Your task to perform on an android device: change the clock display to analog Image 0: 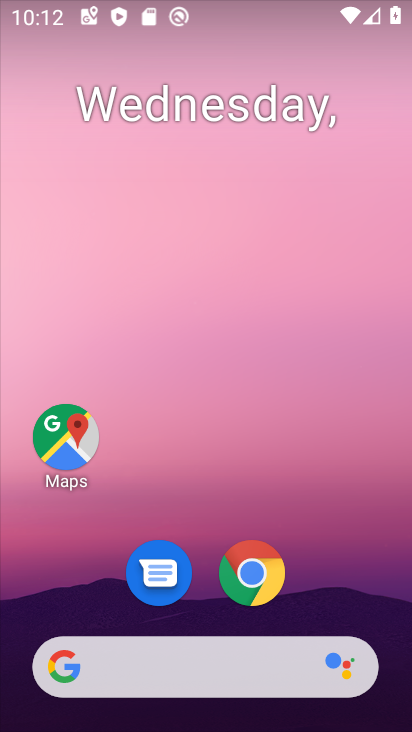
Step 0: drag from (367, 577) to (374, 194)
Your task to perform on an android device: change the clock display to analog Image 1: 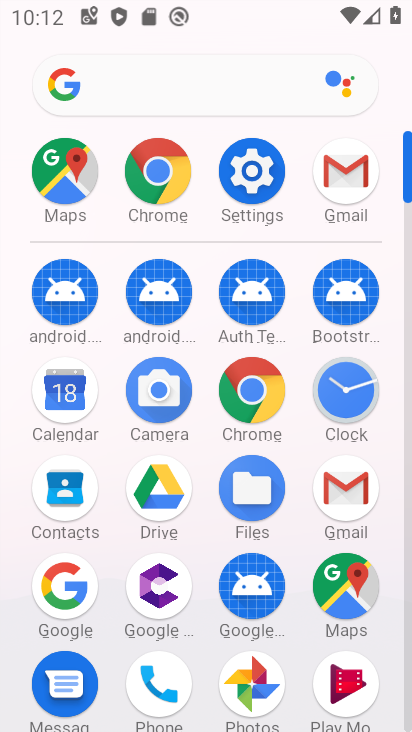
Step 1: click (361, 383)
Your task to perform on an android device: change the clock display to analog Image 2: 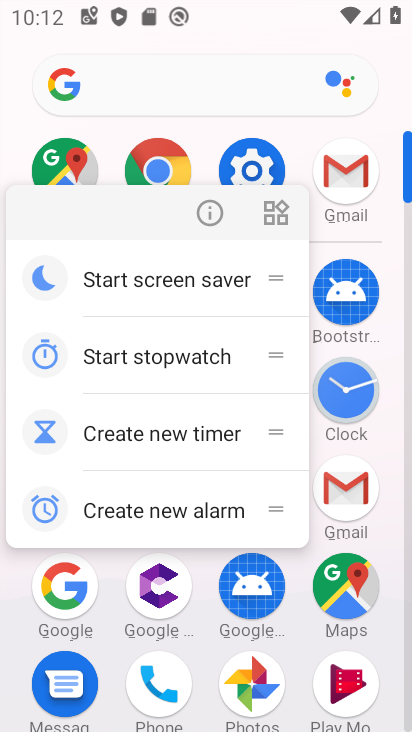
Step 2: click (359, 389)
Your task to perform on an android device: change the clock display to analog Image 3: 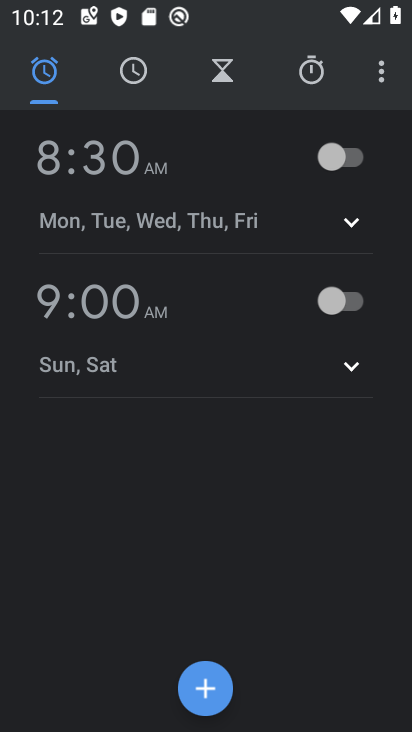
Step 3: click (380, 86)
Your task to perform on an android device: change the clock display to analog Image 4: 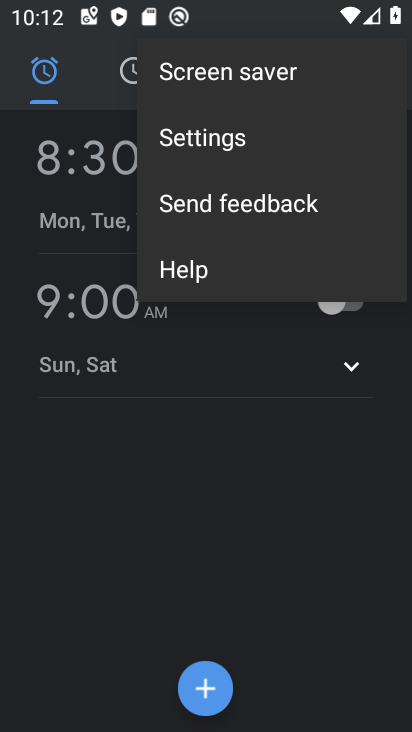
Step 4: click (254, 157)
Your task to perform on an android device: change the clock display to analog Image 5: 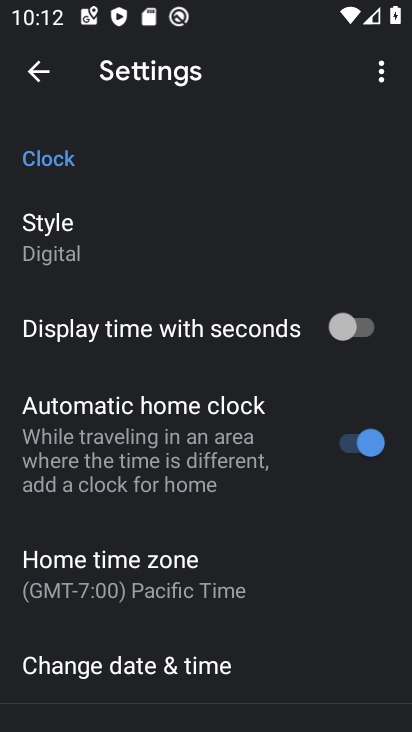
Step 5: drag from (325, 579) to (328, 450)
Your task to perform on an android device: change the clock display to analog Image 6: 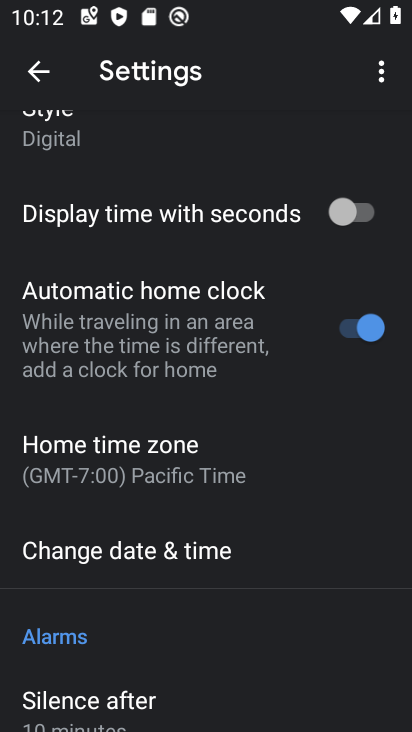
Step 6: drag from (327, 622) to (324, 461)
Your task to perform on an android device: change the clock display to analog Image 7: 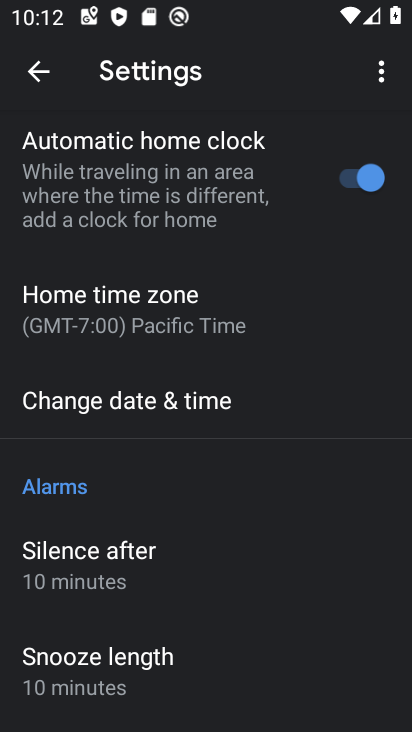
Step 7: drag from (333, 640) to (331, 452)
Your task to perform on an android device: change the clock display to analog Image 8: 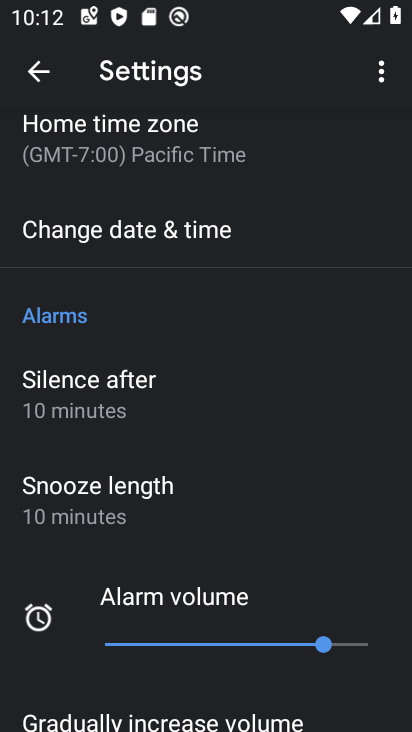
Step 8: drag from (343, 657) to (340, 497)
Your task to perform on an android device: change the clock display to analog Image 9: 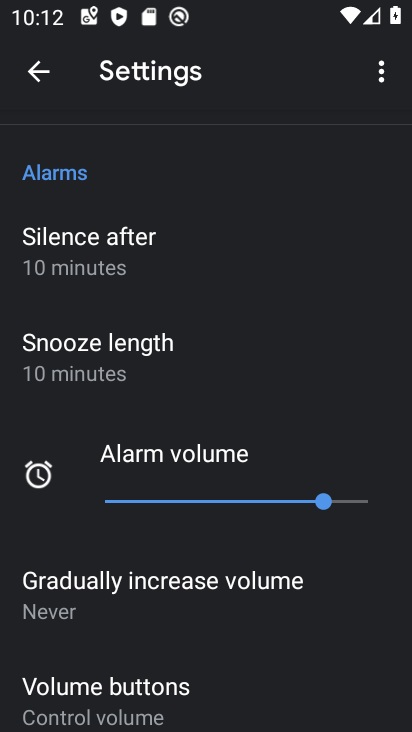
Step 9: drag from (348, 661) to (347, 469)
Your task to perform on an android device: change the clock display to analog Image 10: 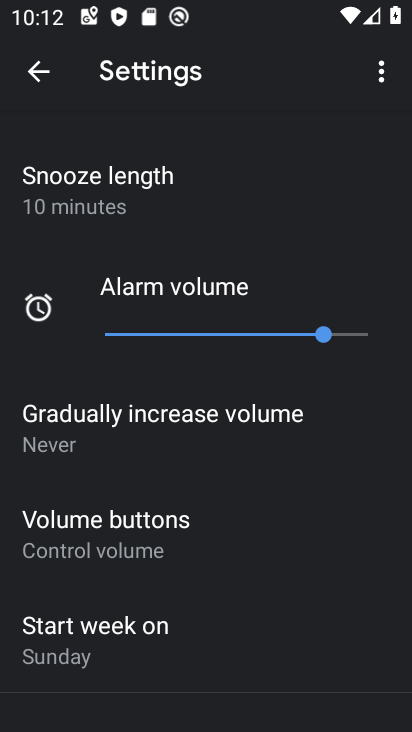
Step 10: drag from (338, 665) to (326, 495)
Your task to perform on an android device: change the clock display to analog Image 11: 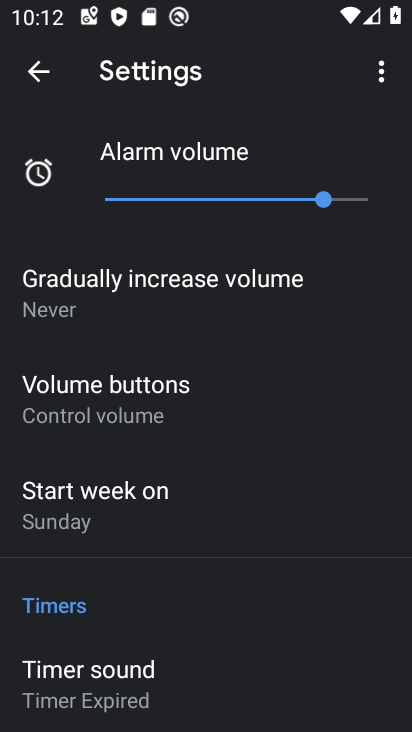
Step 11: drag from (307, 646) to (312, 486)
Your task to perform on an android device: change the clock display to analog Image 12: 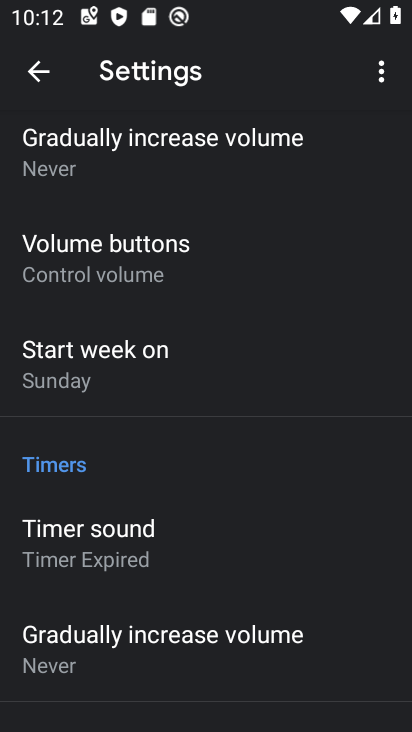
Step 12: drag from (326, 670) to (337, 484)
Your task to perform on an android device: change the clock display to analog Image 13: 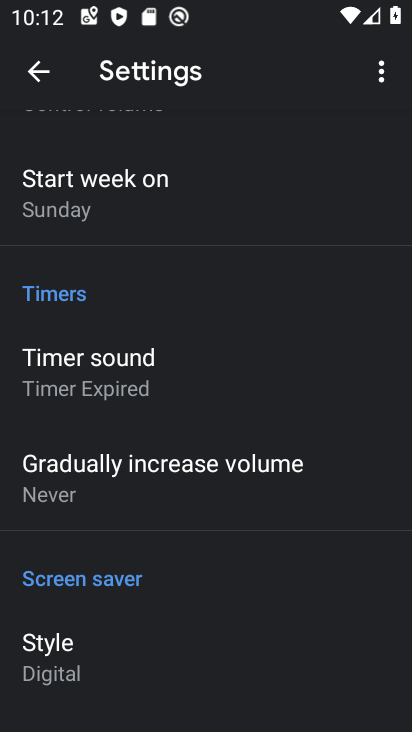
Step 13: drag from (336, 670) to (350, 495)
Your task to perform on an android device: change the clock display to analog Image 14: 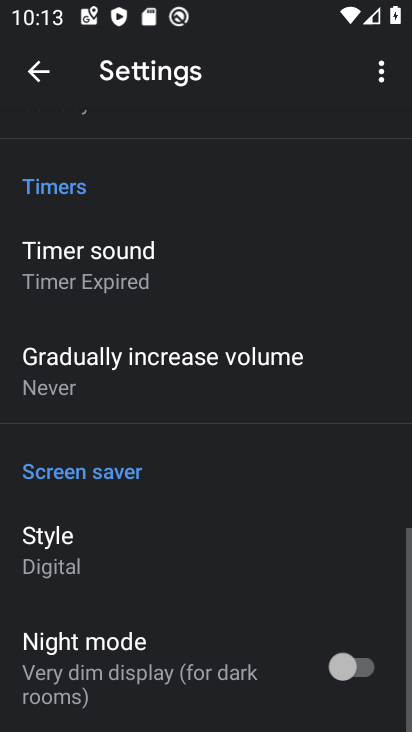
Step 14: drag from (361, 413) to (360, 545)
Your task to perform on an android device: change the clock display to analog Image 15: 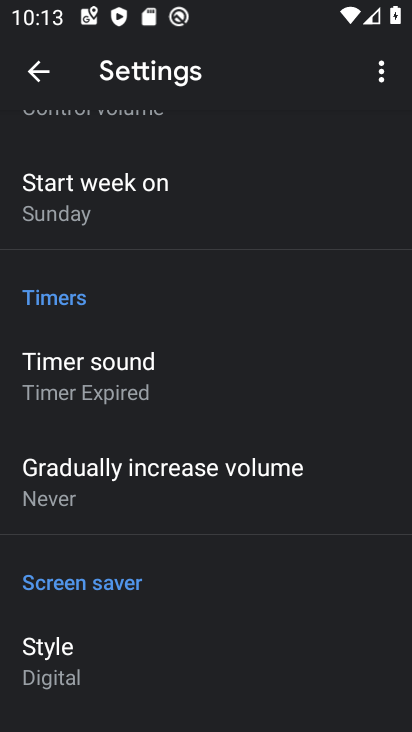
Step 15: drag from (376, 405) to (369, 543)
Your task to perform on an android device: change the clock display to analog Image 16: 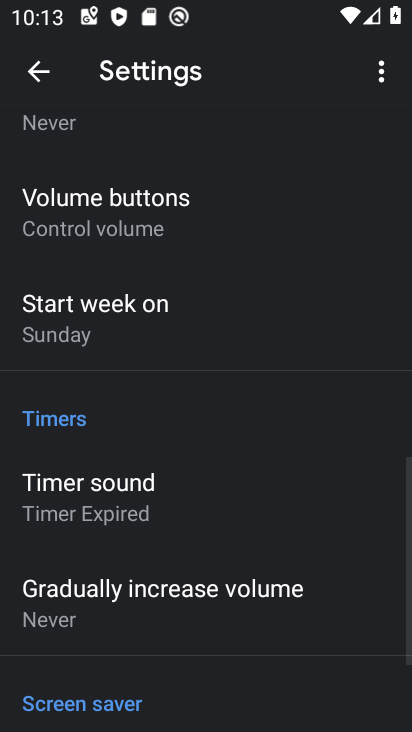
Step 16: drag from (374, 405) to (377, 504)
Your task to perform on an android device: change the clock display to analog Image 17: 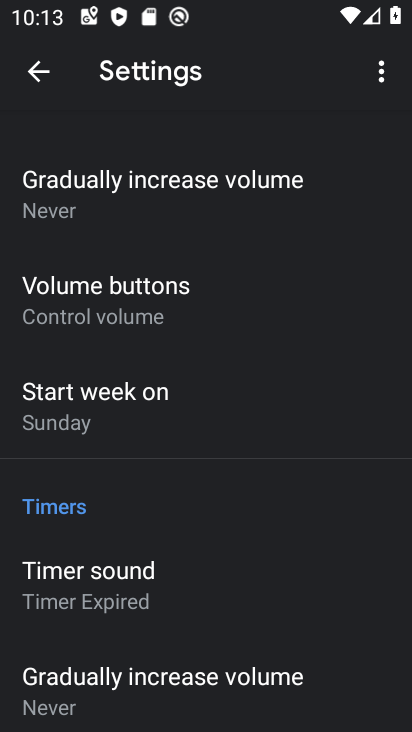
Step 17: drag from (372, 386) to (372, 489)
Your task to perform on an android device: change the clock display to analog Image 18: 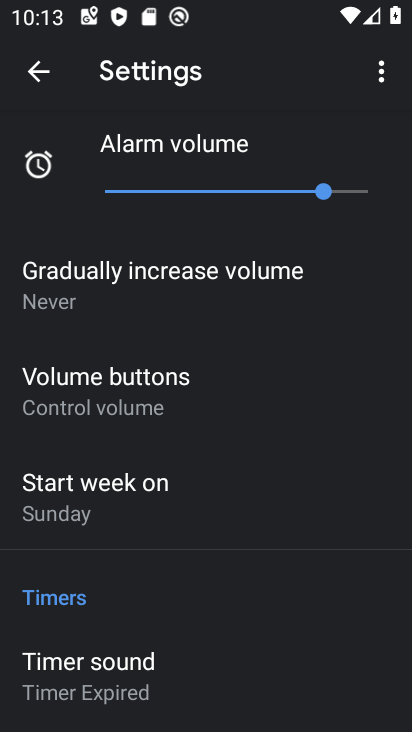
Step 18: drag from (378, 345) to (367, 441)
Your task to perform on an android device: change the clock display to analog Image 19: 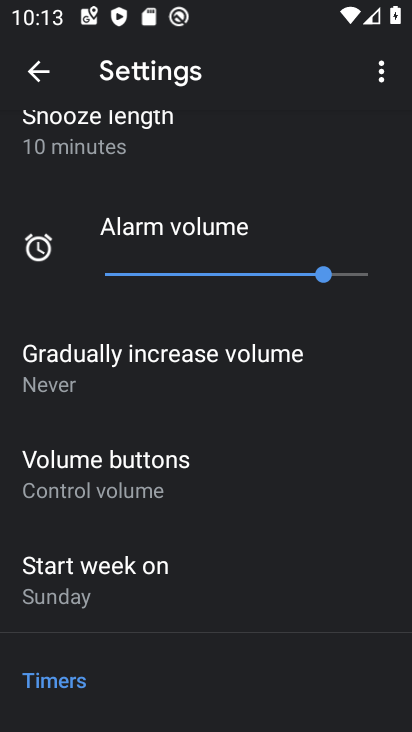
Step 19: drag from (364, 342) to (367, 418)
Your task to perform on an android device: change the clock display to analog Image 20: 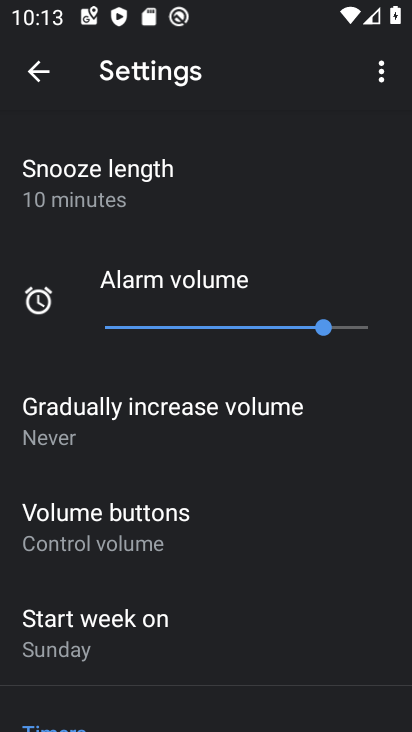
Step 20: drag from (368, 293) to (359, 395)
Your task to perform on an android device: change the clock display to analog Image 21: 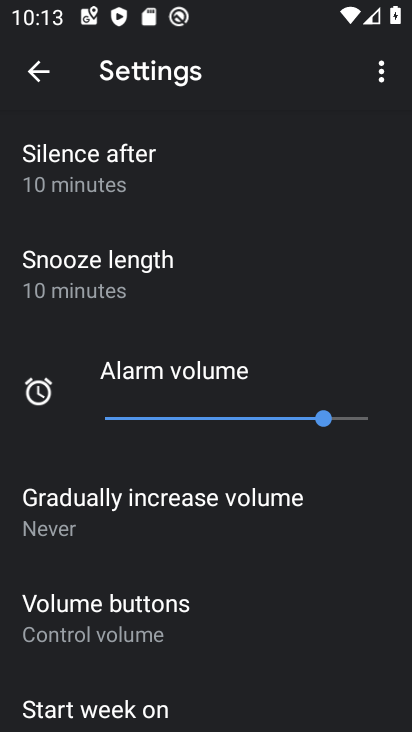
Step 21: drag from (354, 275) to (345, 378)
Your task to perform on an android device: change the clock display to analog Image 22: 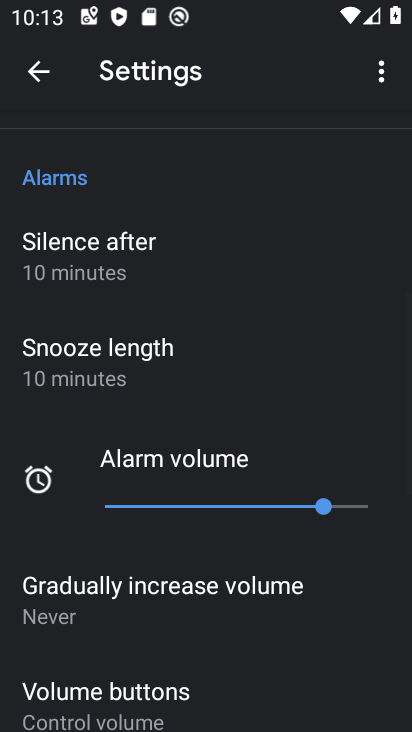
Step 22: drag from (345, 250) to (337, 348)
Your task to perform on an android device: change the clock display to analog Image 23: 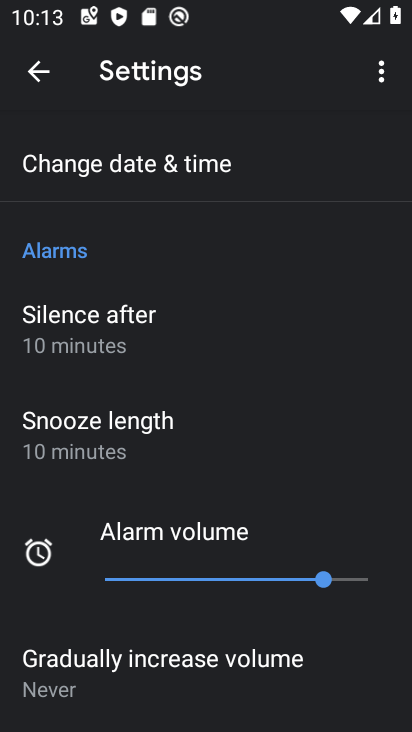
Step 23: drag from (336, 244) to (331, 337)
Your task to perform on an android device: change the clock display to analog Image 24: 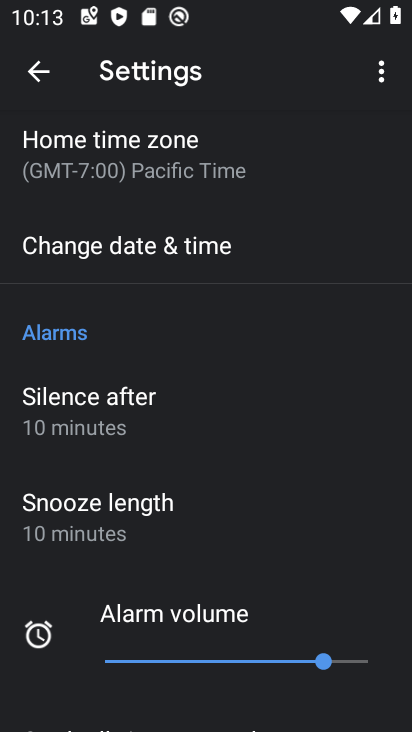
Step 24: drag from (345, 248) to (337, 317)
Your task to perform on an android device: change the clock display to analog Image 25: 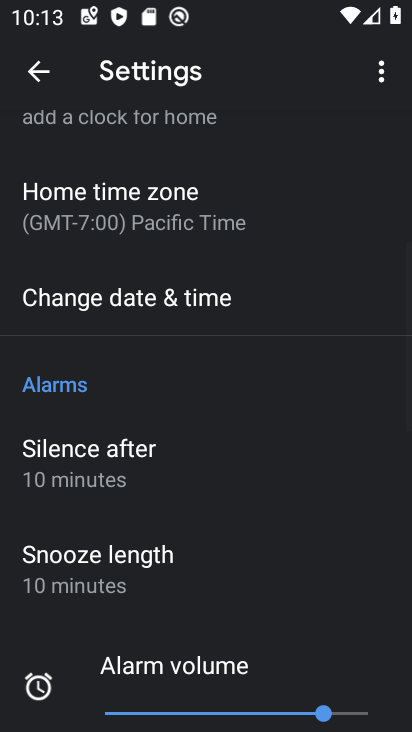
Step 25: drag from (342, 243) to (337, 311)
Your task to perform on an android device: change the clock display to analog Image 26: 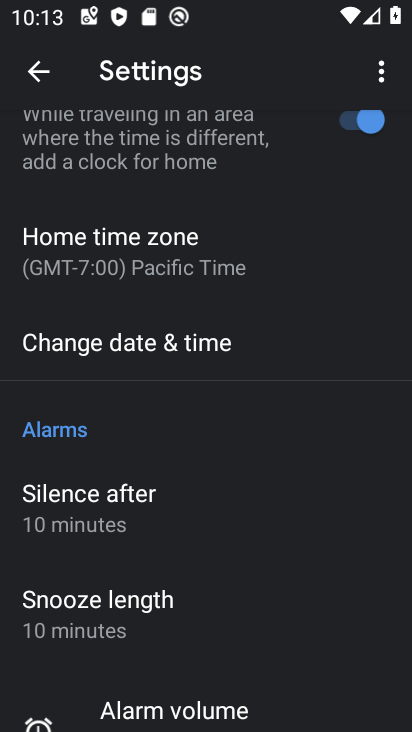
Step 26: drag from (342, 242) to (333, 313)
Your task to perform on an android device: change the clock display to analog Image 27: 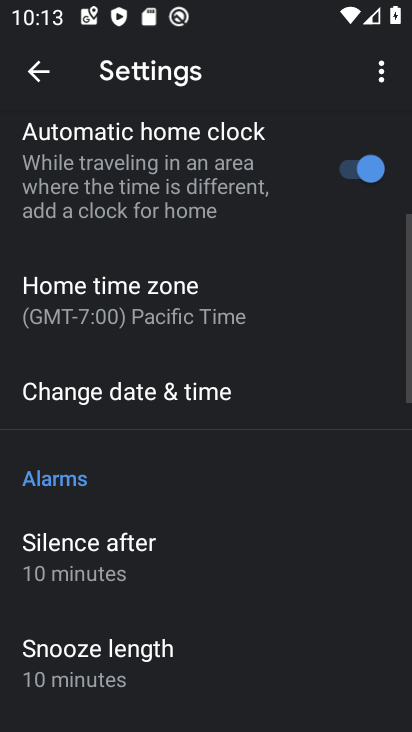
Step 27: drag from (327, 232) to (321, 300)
Your task to perform on an android device: change the clock display to analog Image 28: 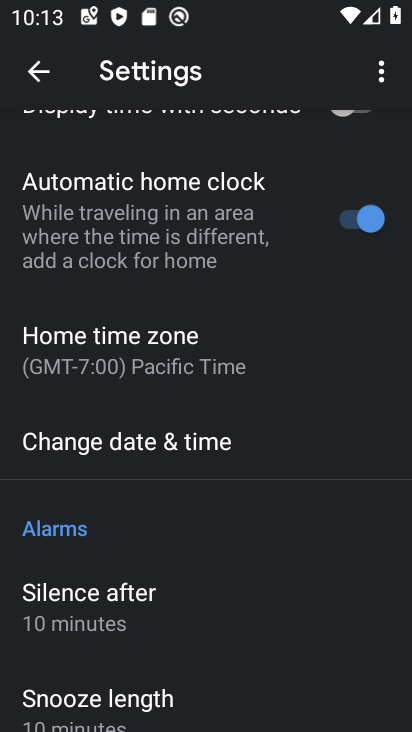
Step 28: drag from (318, 205) to (315, 285)
Your task to perform on an android device: change the clock display to analog Image 29: 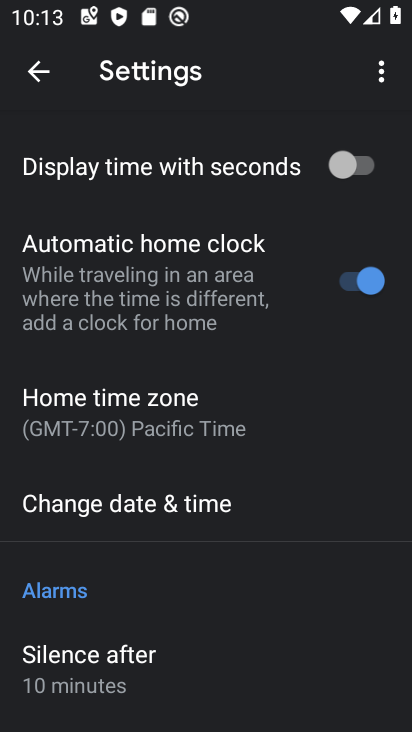
Step 29: drag from (305, 152) to (296, 264)
Your task to perform on an android device: change the clock display to analog Image 30: 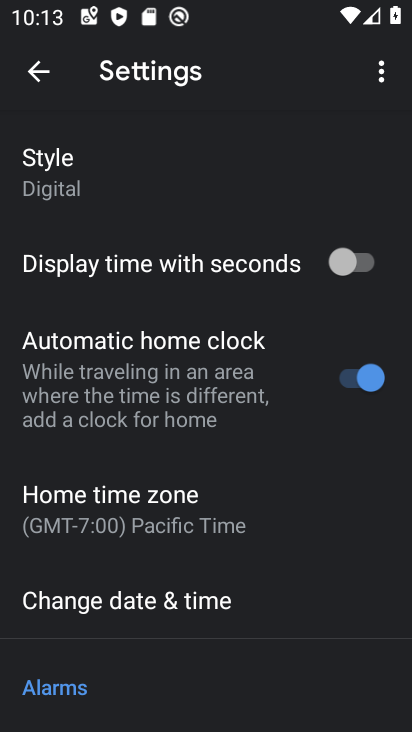
Step 30: drag from (294, 176) to (281, 296)
Your task to perform on an android device: change the clock display to analog Image 31: 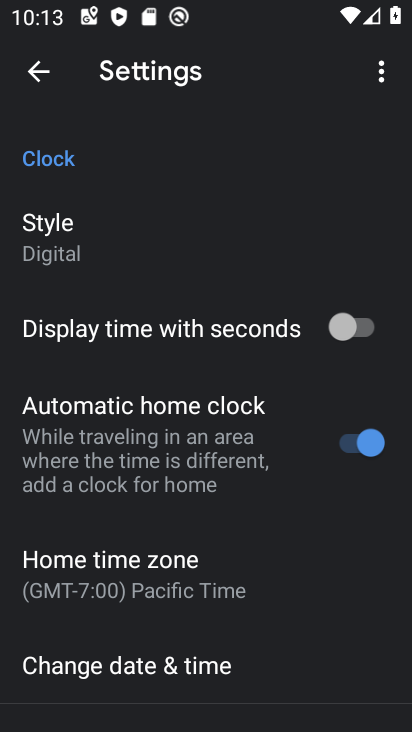
Step 31: click (60, 252)
Your task to perform on an android device: change the clock display to analog Image 32: 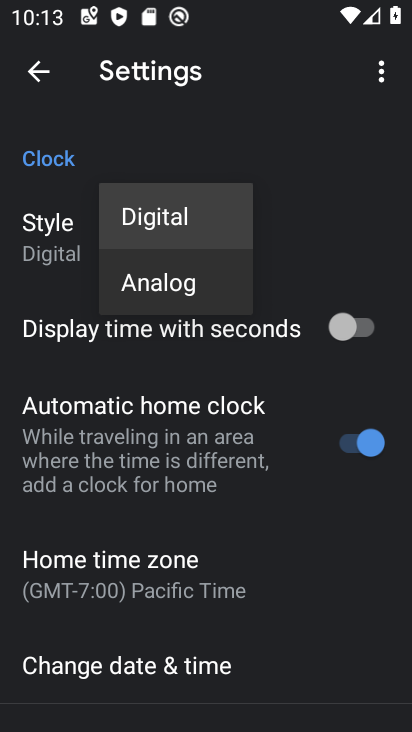
Step 32: click (134, 285)
Your task to perform on an android device: change the clock display to analog Image 33: 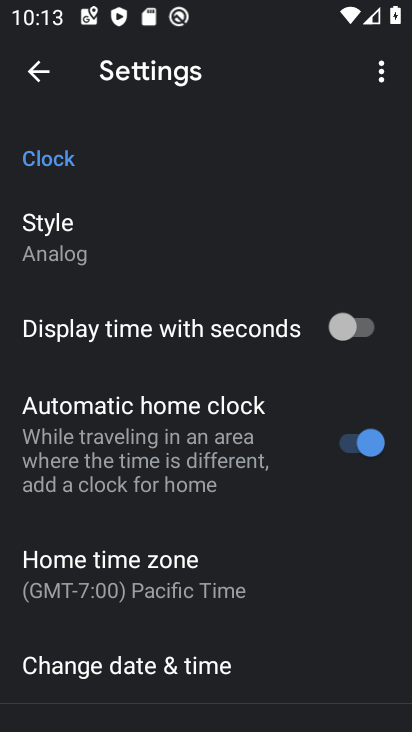
Step 33: task complete